Your task to perform on an android device: Open internet settings Image 0: 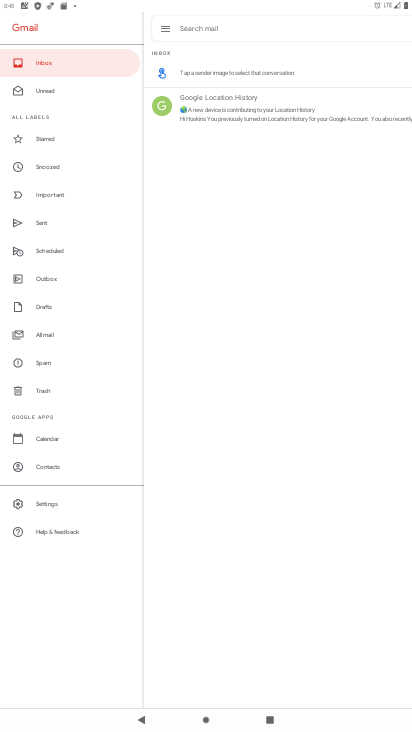
Step 0: press home button
Your task to perform on an android device: Open internet settings Image 1: 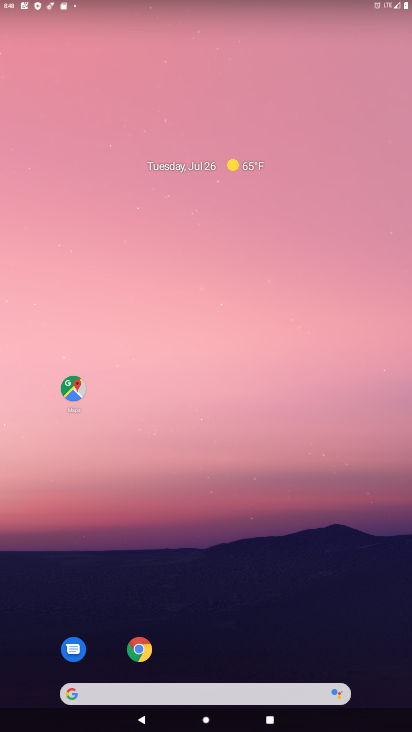
Step 1: drag from (162, 689) to (231, 35)
Your task to perform on an android device: Open internet settings Image 2: 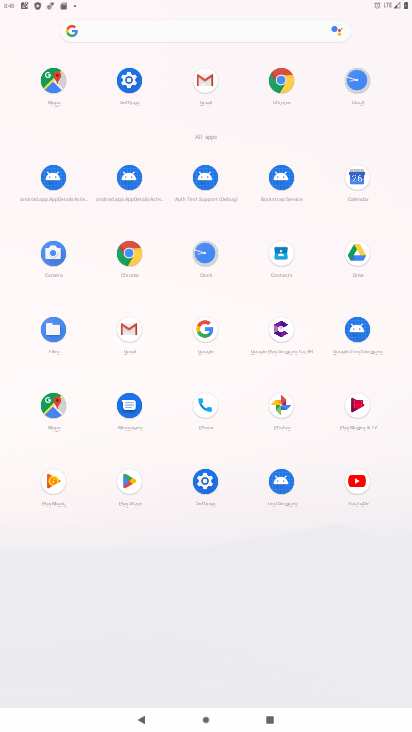
Step 2: click (129, 80)
Your task to perform on an android device: Open internet settings Image 3: 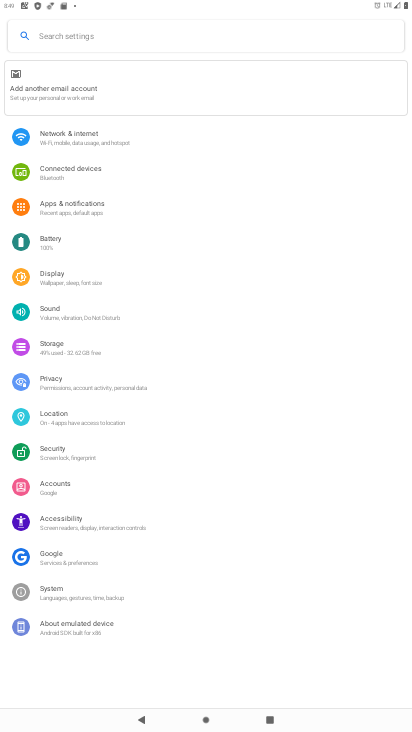
Step 3: click (96, 135)
Your task to perform on an android device: Open internet settings Image 4: 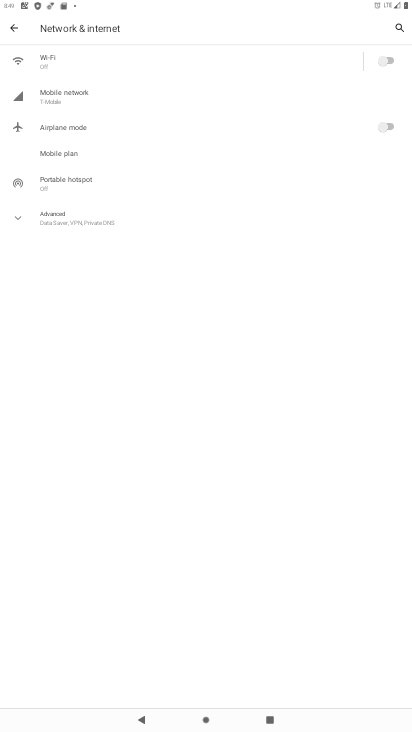
Step 4: task complete